Your task to perform on an android device: What's the weather going to be tomorrow? Image 0: 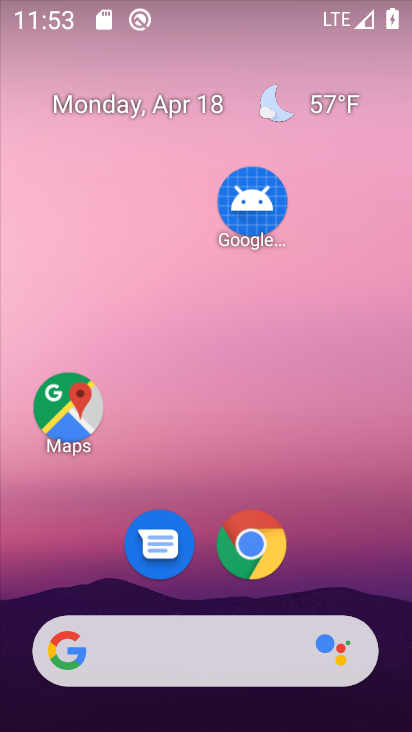
Step 0: drag from (247, 395) to (288, 167)
Your task to perform on an android device: What's the weather going to be tomorrow? Image 1: 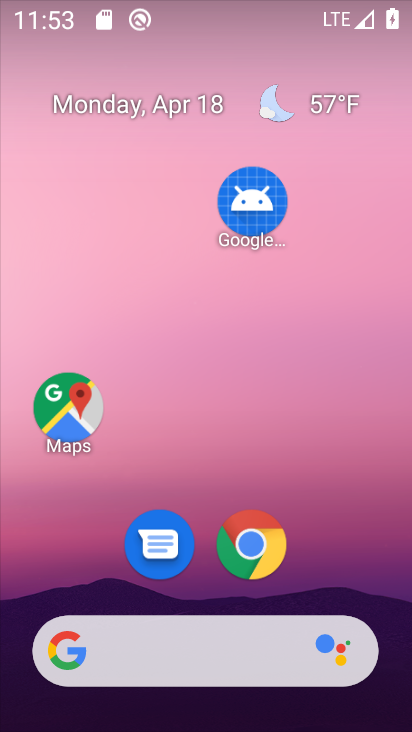
Step 1: drag from (271, 527) to (251, 186)
Your task to perform on an android device: What's the weather going to be tomorrow? Image 2: 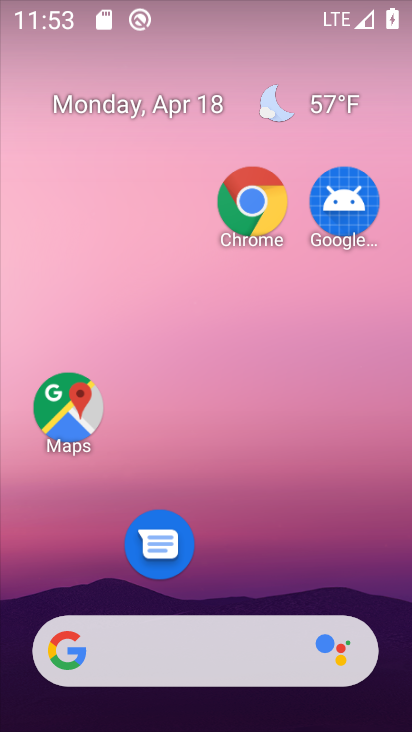
Step 2: drag from (291, 471) to (286, 150)
Your task to perform on an android device: What's the weather going to be tomorrow? Image 3: 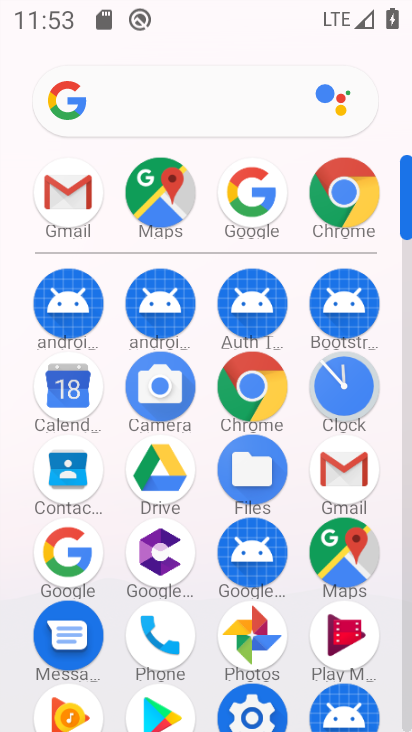
Step 3: click (245, 384)
Your task to perform on an android device: What's the weather going to be tomorrow? Image 4: 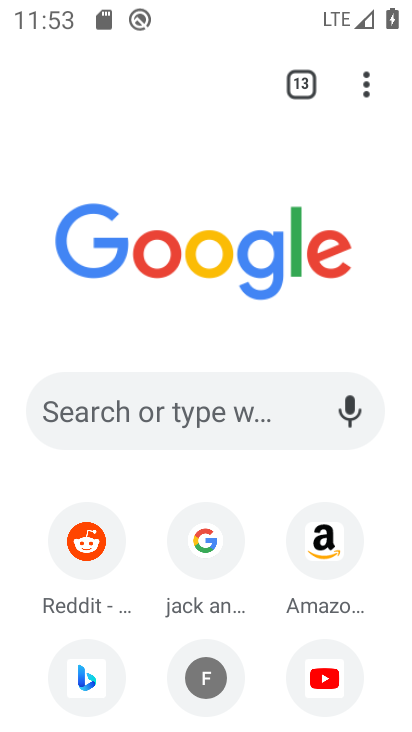
Step 4: click (237, 386)
Your task to perform on an android device: What's the weather going to be tomorrow? Image 5: 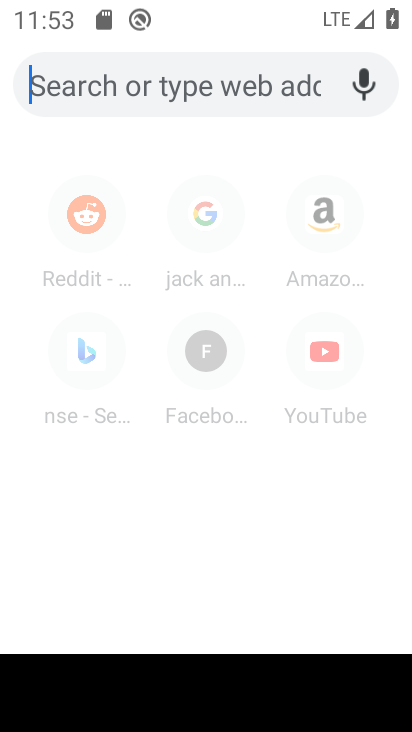
Step 5: click (223, 82)
Your task to perform on an android device: What's the weather going to be tomorrow? Image 6: 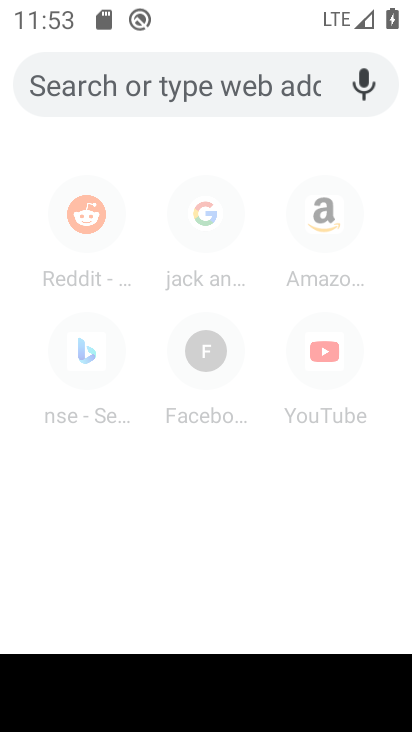
Step 6: type "What's the weather going to be tomorrow?"
Your task to perform on an android device: What's the weather going to be tomorrow? Image 7: 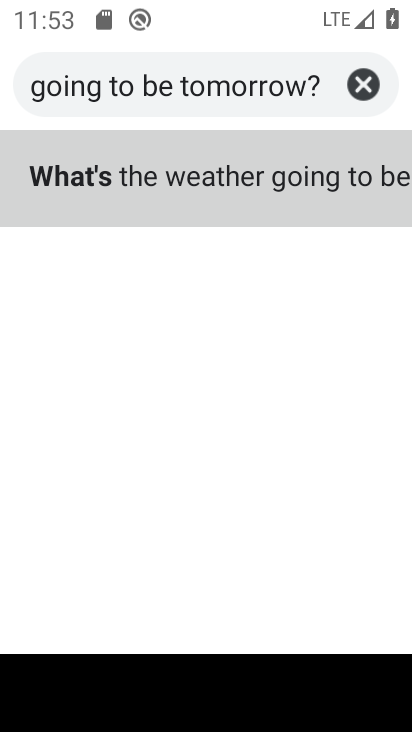
Step 7: click (203, 175)
Your task to perform on an android device: What's the weather going to be tomorrow? Image 8: 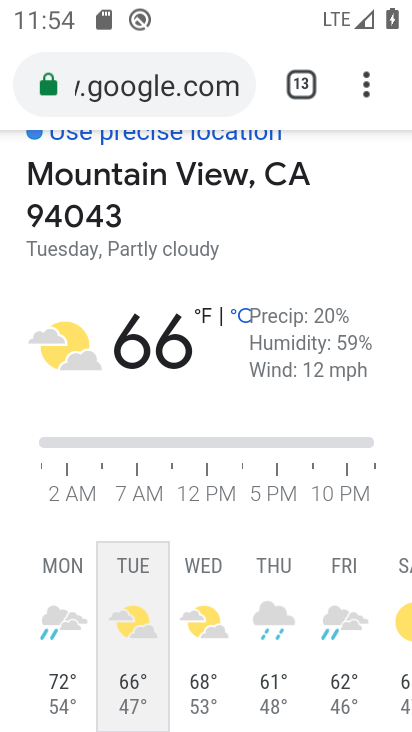
Step 8: task complete